Your task to perform on an android device: turn on notifications settings in the gmail app Image 0: 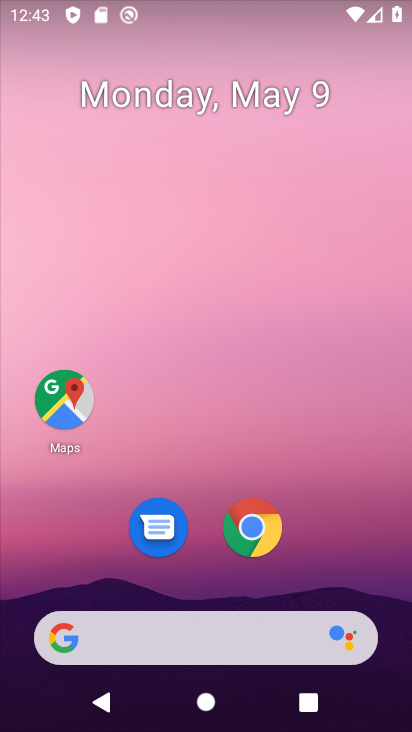
Step 0: drag from (309, 570) to (322, 2)
Your task to perform on an android device: turn on notifications settings in the gmail app Image 1: 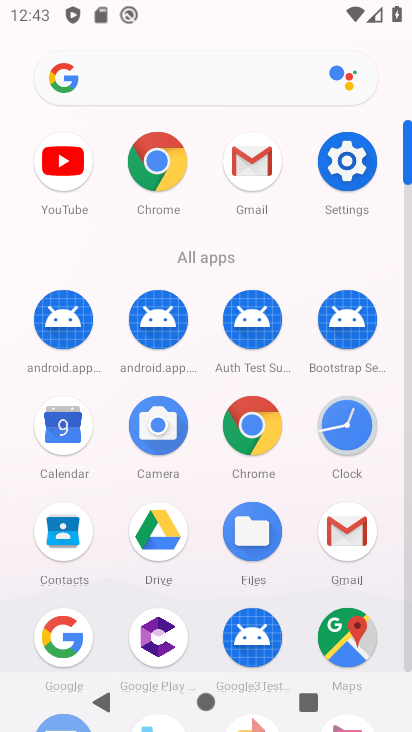
Step 1: click (253, 170)
Your task to perform on an android device: turn on notifications settings in the gmail app Image 2: 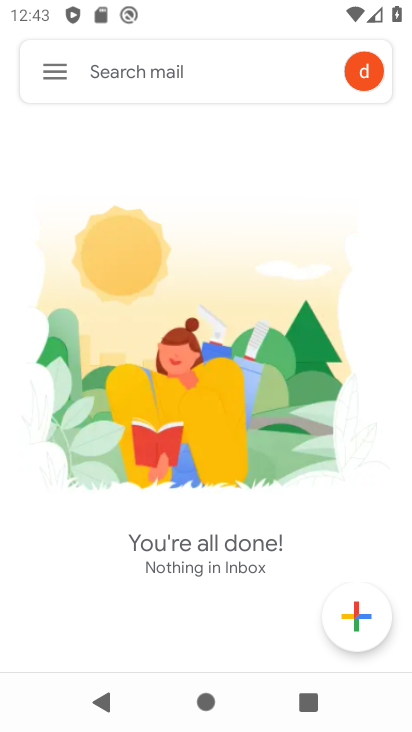
Step 2: click (54, 74)
Your task to perform on an android device: turn on notifications settings in the gmail app Image 3: 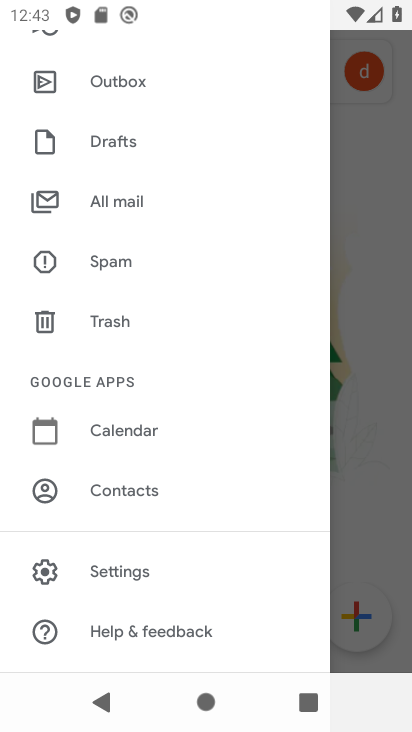
Step 3: click (144, 565)
Your task to perform on an android device: turn on notifications settings in the gmail app Image 4: 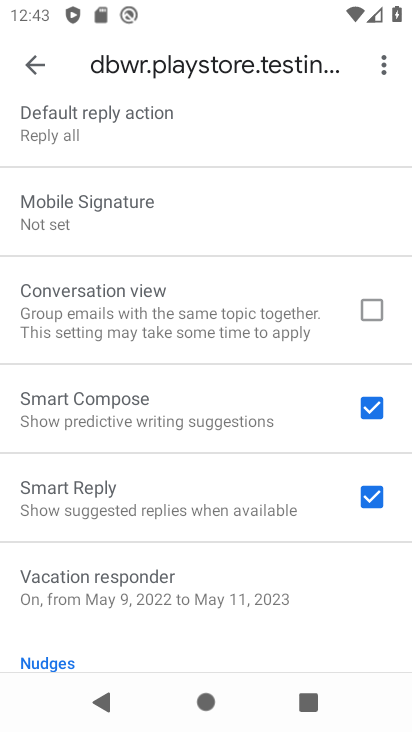
Step 4: drag from (151, 256) to (196, 461)
Your task to perform on an android device: turn on notifications settings in the gmail app Image 5: 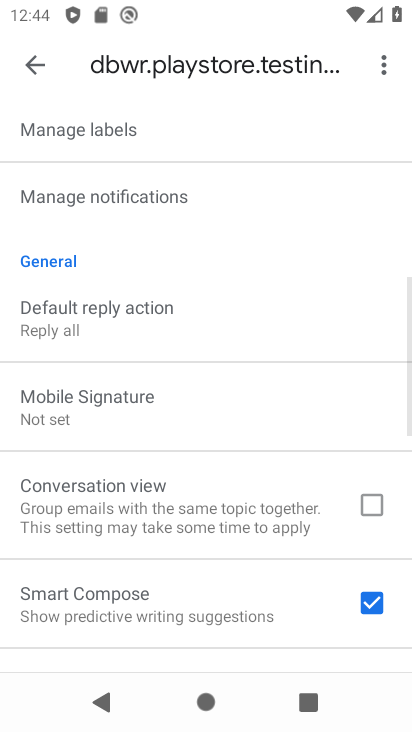
Step 5: drag from (181, 235) to (225, 405)
Your task to perform on an android device: turn on notifications settings in the gmail app Image 6: 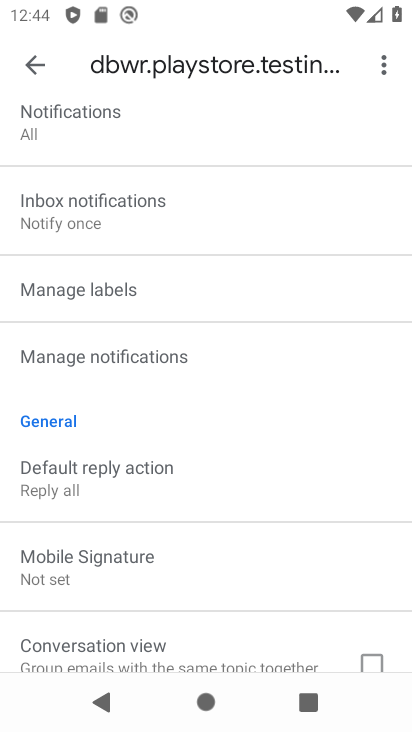
Step 6: click (150, 355)
Your task to perform on an android device: turn on notifications settings in the gmail app Image 7: 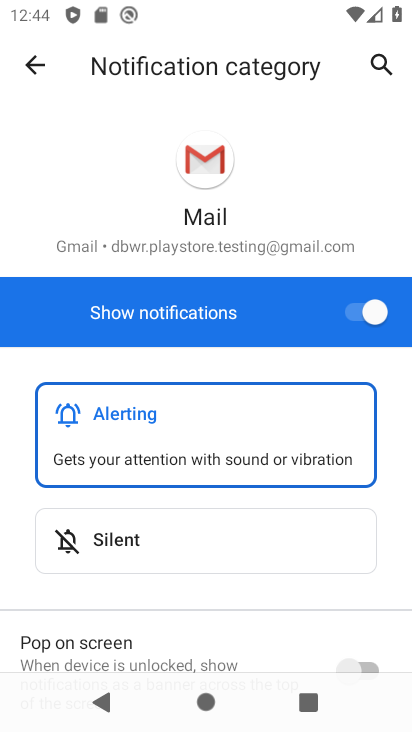
Step 7: task complete